Your task to perform on an android device: check the backup settings in the google photos Image 0: 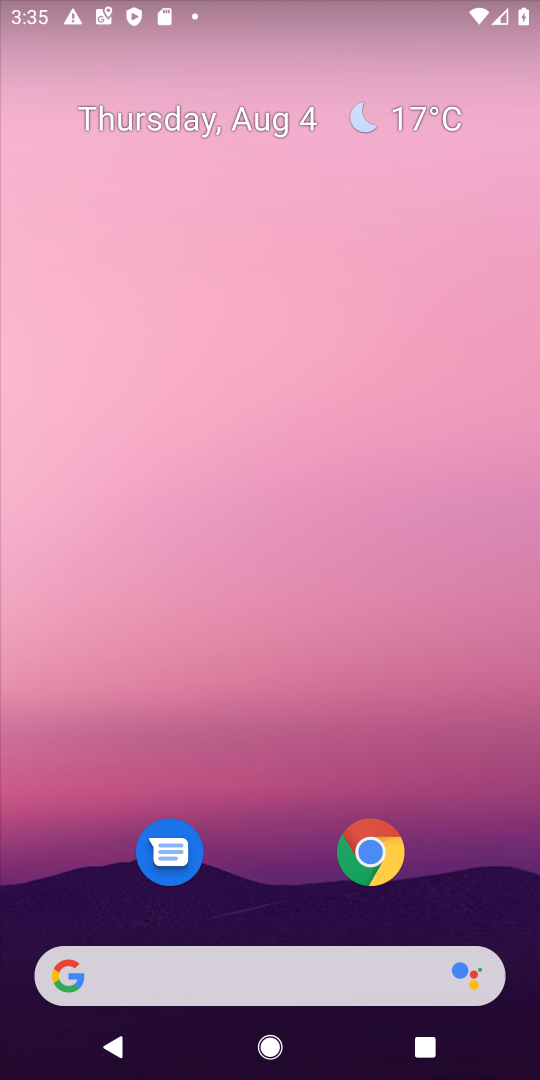
Step 0: drag from (247, 901) to (375, 207)
Your task to perform on an android device: check the backup settings in the google photos Image 1: 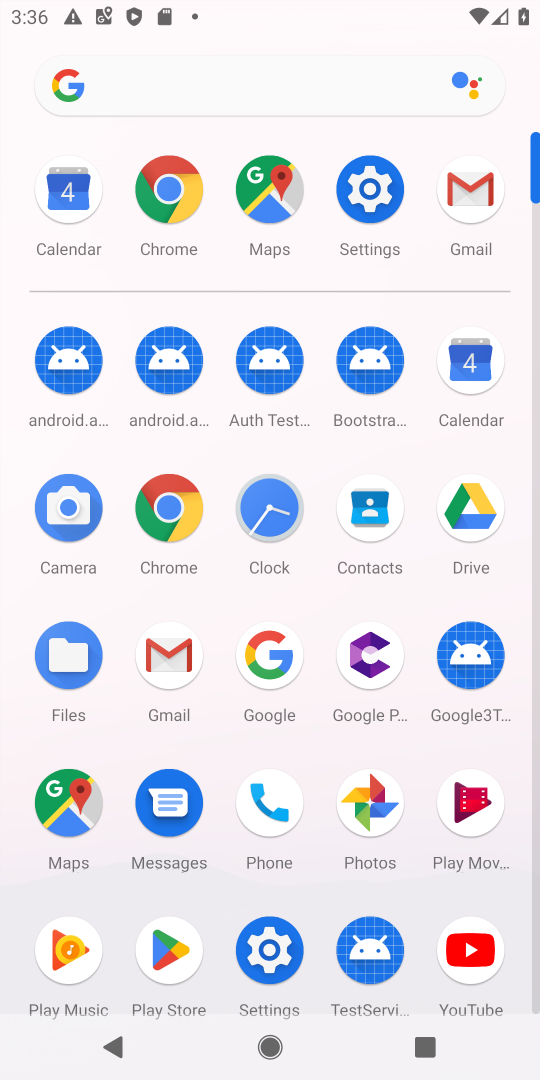
Step 1: click (360, 801)
Your task to perform on an android device: check the backup settings in the google photos Image 2: 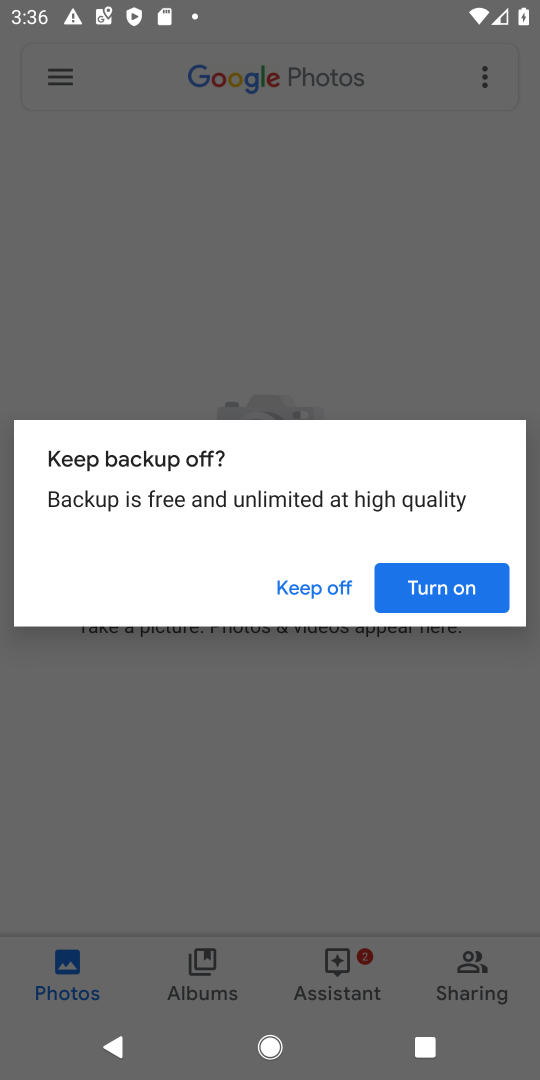
Step 2: click (306, 593)
Your task to perform on an android device: check the backup settings in the google photos Image 3: 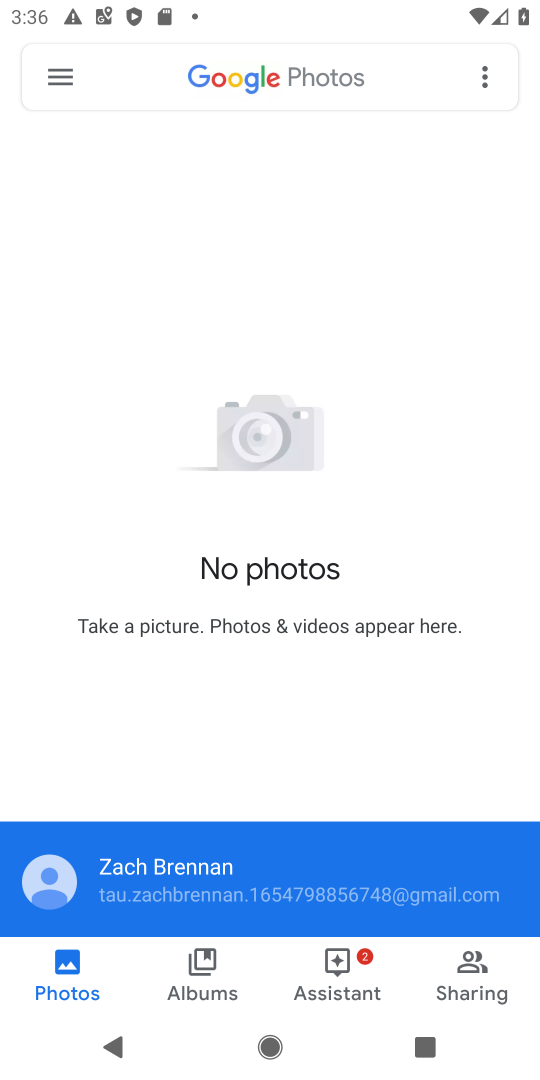
Step 3: click (59, 80)
Your task to perform on an android device: check the backup settings in the google photos Image 4: 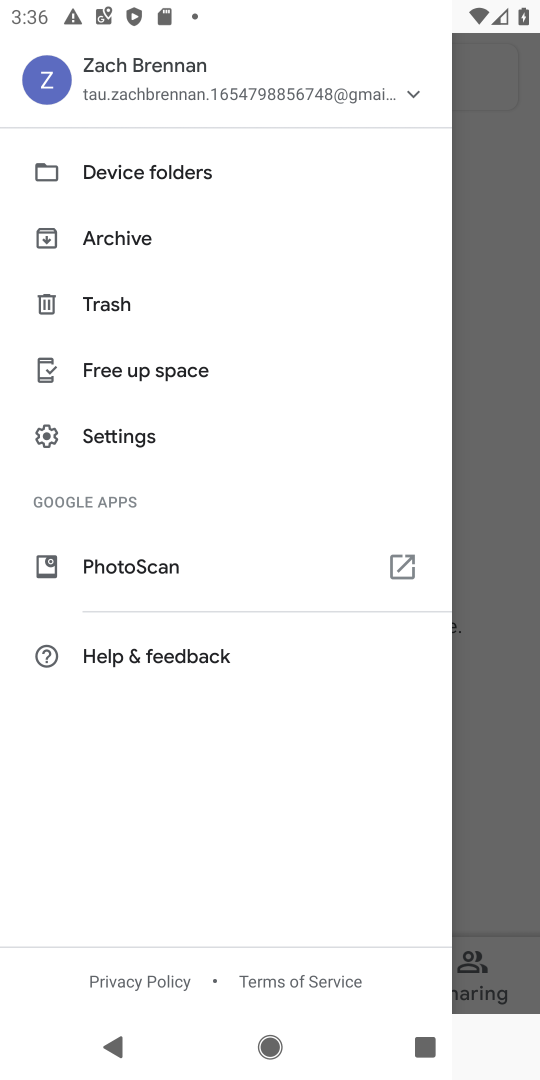
Step 4: click (137, 432)
Your task to perform on an android device: check the backup settings in the google photos Image 5: 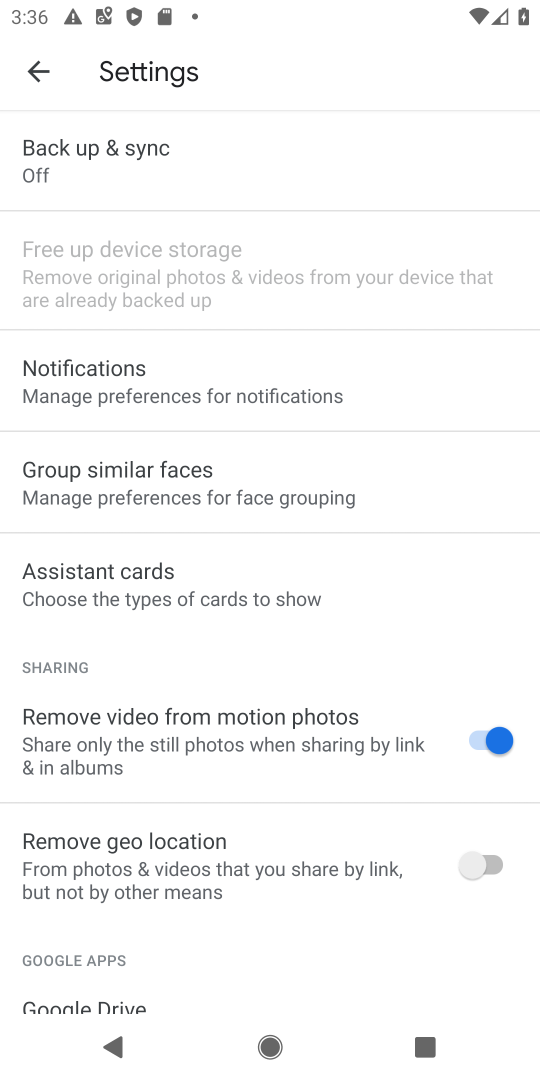
Step 5: task complete